Your task to perform on an android device: Open Youtube and go to "Your channel" Image 0: 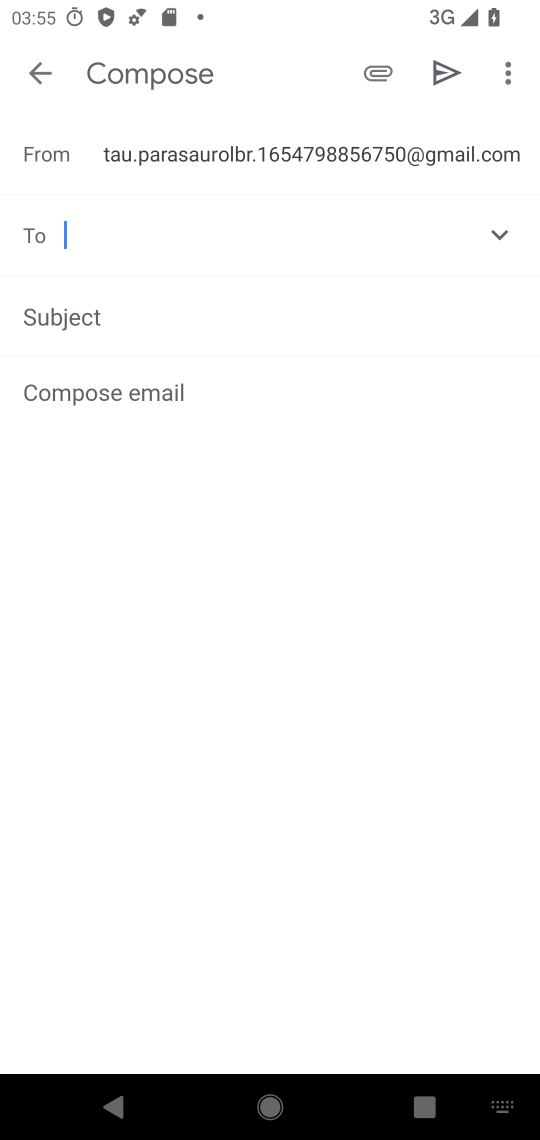
Step 0: press home button
Your task to perform on an android device: Open Youtube and go to "Your channel" Image 1: 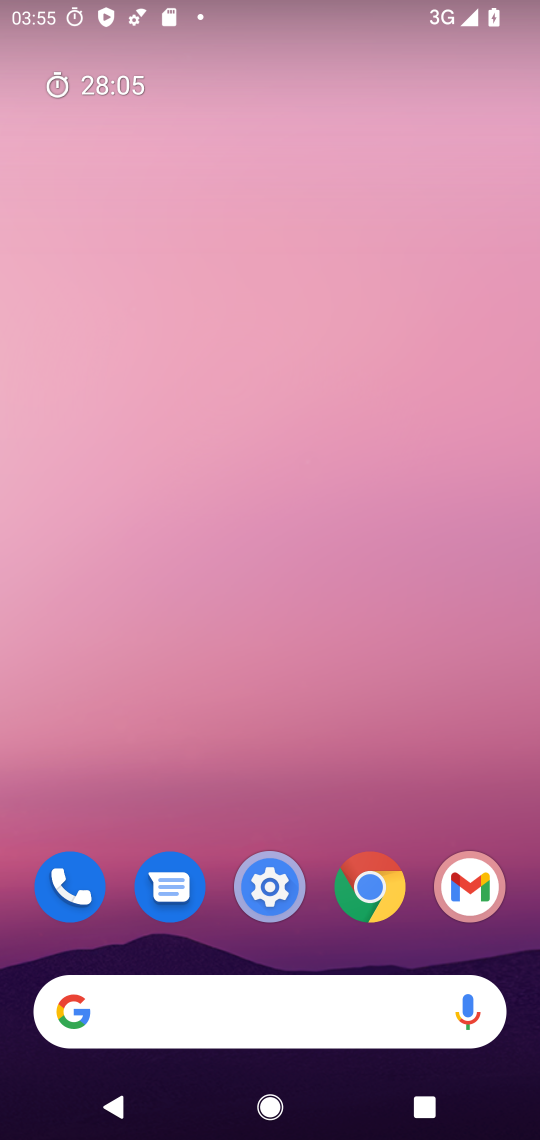
Step 1: drag from (307, 791) to (353, 269)
Your task to perform on an android device: Open Youtube and go to "Your channel" Image 2: 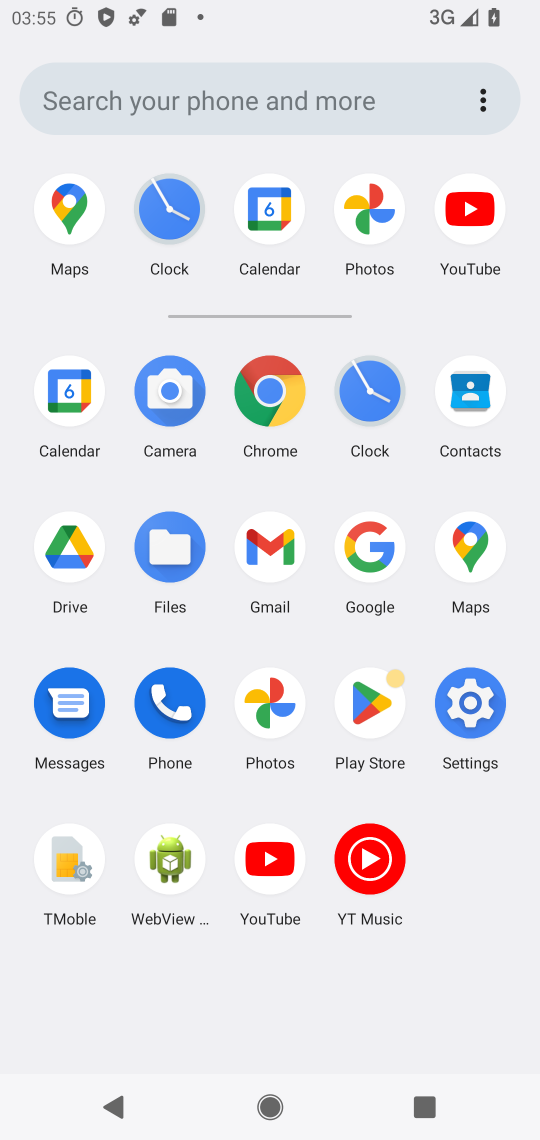
Step 2: click (259, 873)
Your task to perform on an android device: Open Youtube and go to "Your channel" Image 3: 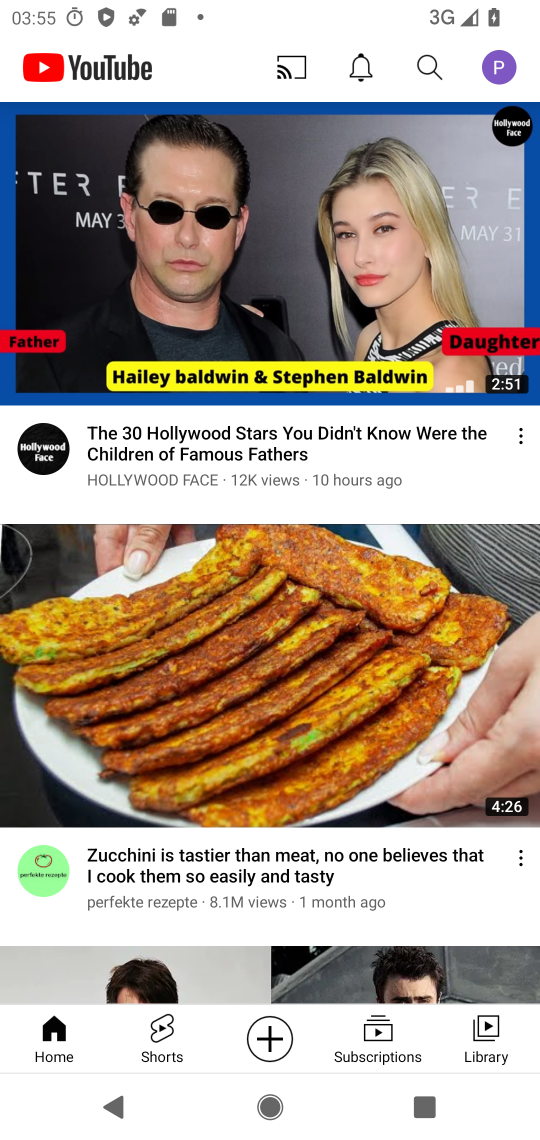
Step 3: click (504, 54)
Your task to perform on an android device: Open Youtube and go to "Your channel" Image 4: 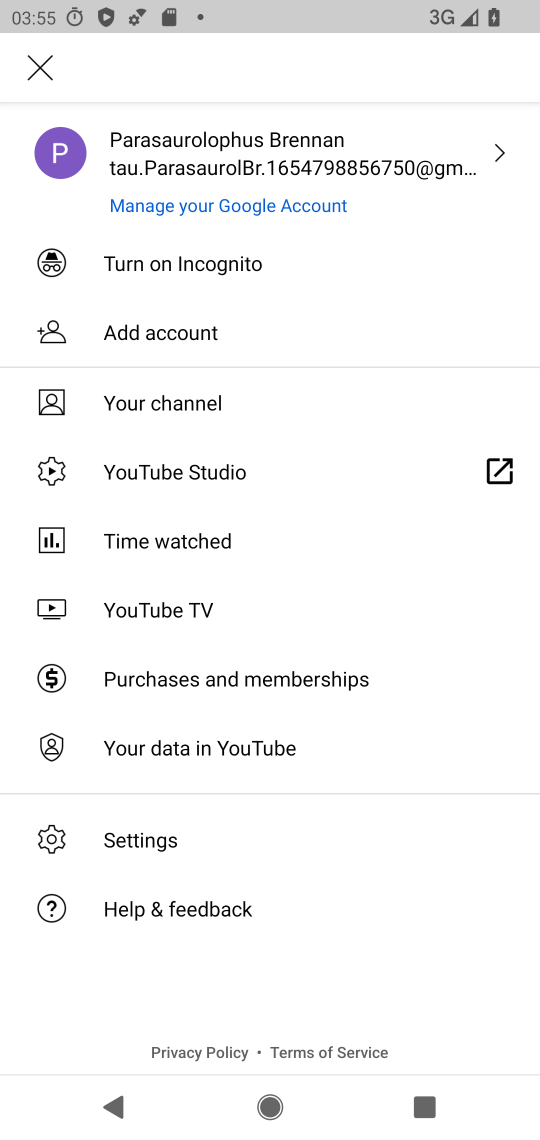
Step 4: click (165, 409)
Your task to perform on an android device: Open Youtube and go to "Your channel" Image 5: 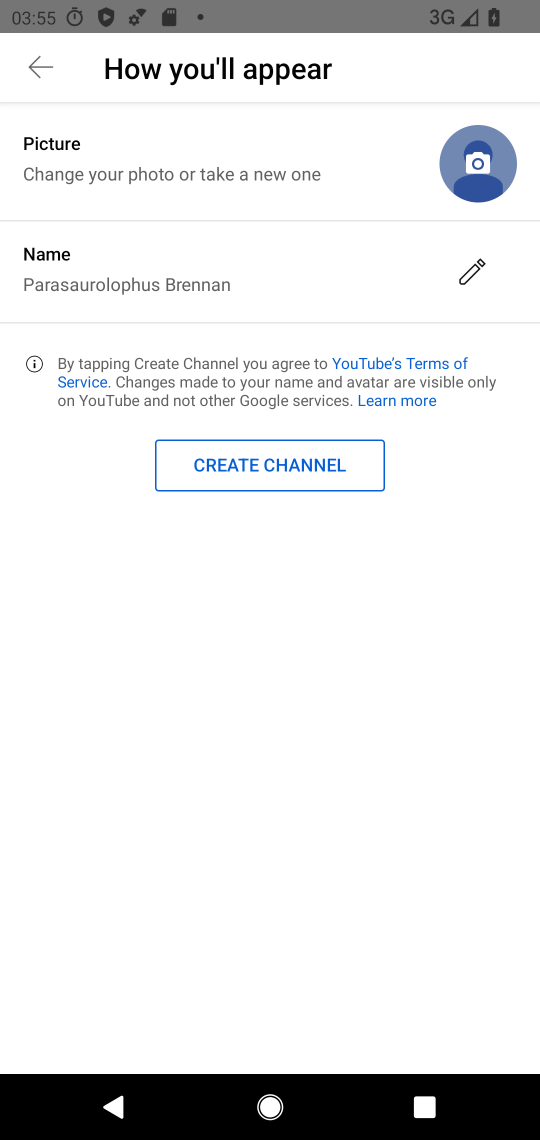
Step 5: task complete